Your task to perform on an android device: open app "eBay: The shopping marketplace" (install if not already installed) Image 0: 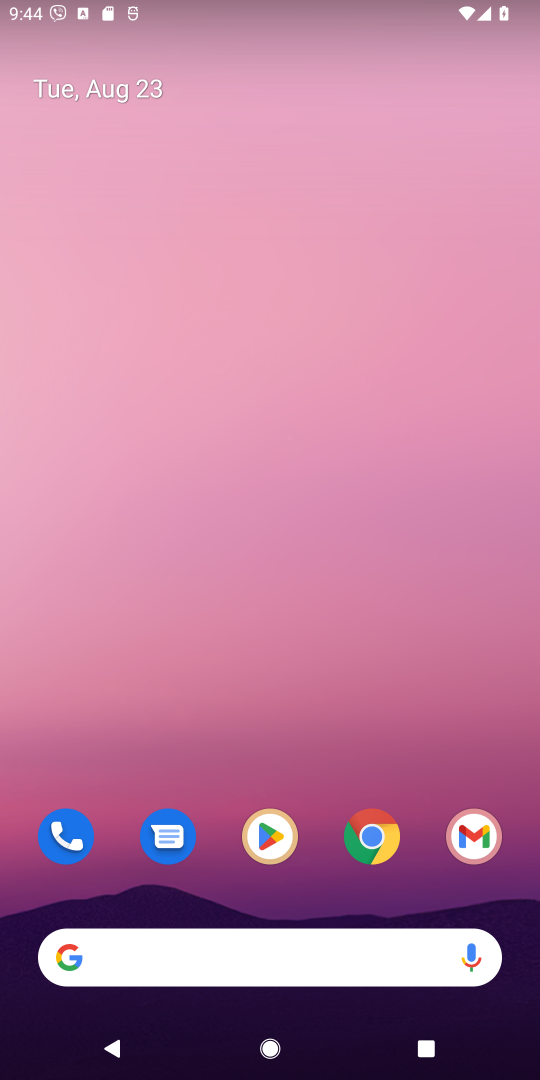
Step 0: click (278, 828)
Your task to perform on an android device: open app "eBay: The shopping marketplace" (install if not already installed) Image 1: 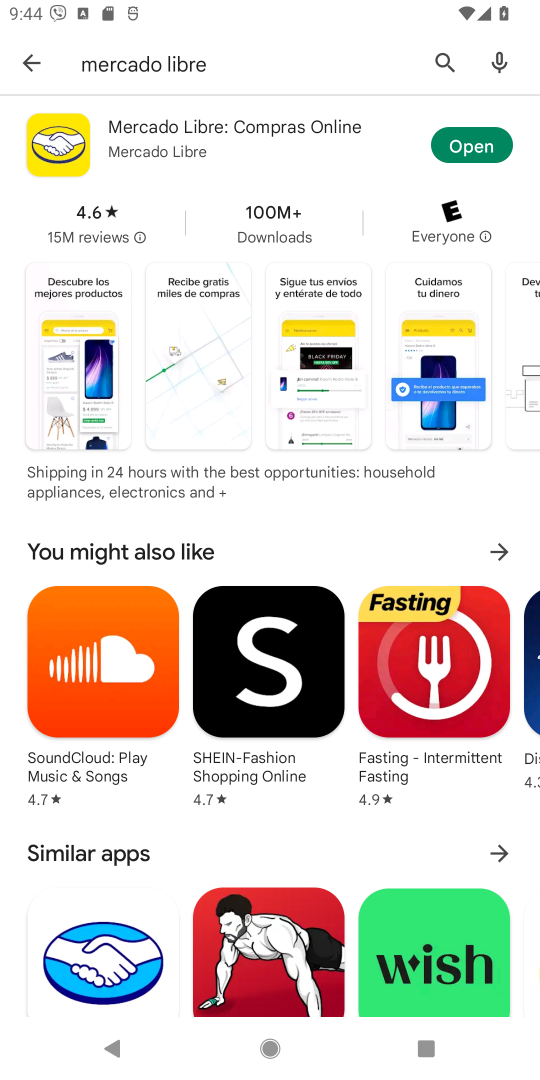
Step 1: click (445, 54)
Your task to perform on an android device: open app "eBay: The shopping marketplace" (install if not already installed) Image 2: 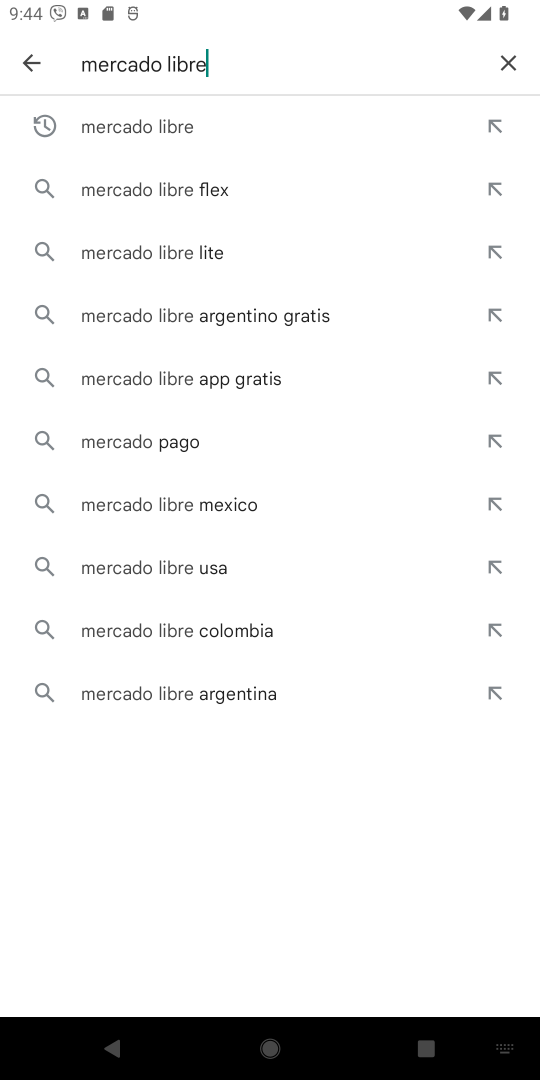
Step 2: click (512, 56)
Your task to perform on an android device: open app "eBay: The shopping marketplace" (install if not already installed) Image 3: 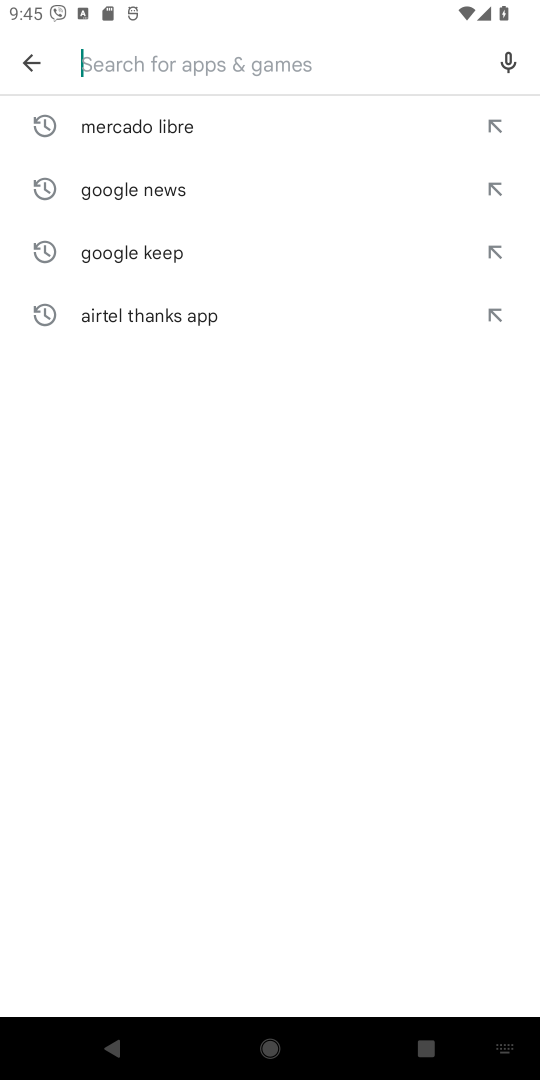
Step 3: type "eBay: The shopping marketplace"
Your task to perform on an android device: open app "eBay: The shopping marketplace" (install if not already installed) Image 4: 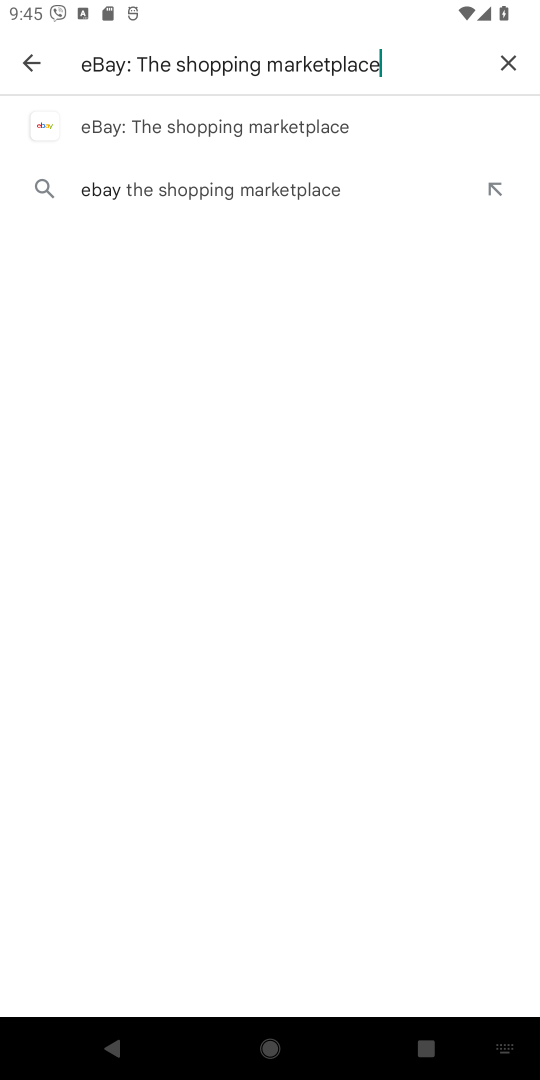
Step 4: click (174, 121)
Your task to perform on an android device: open app "eBay: The shopping marketplace" (install if not already installed) Image 5: 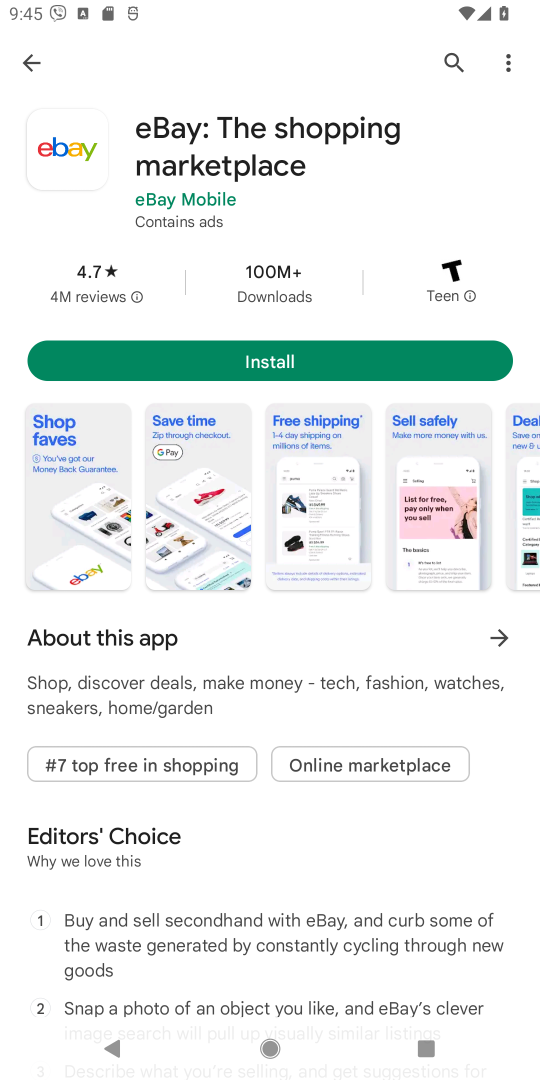
Step 5: click (304, 361)
Your task to perform on an android device: open app "eBay: The shopping marketplace" (install if not already installed) Image 6: 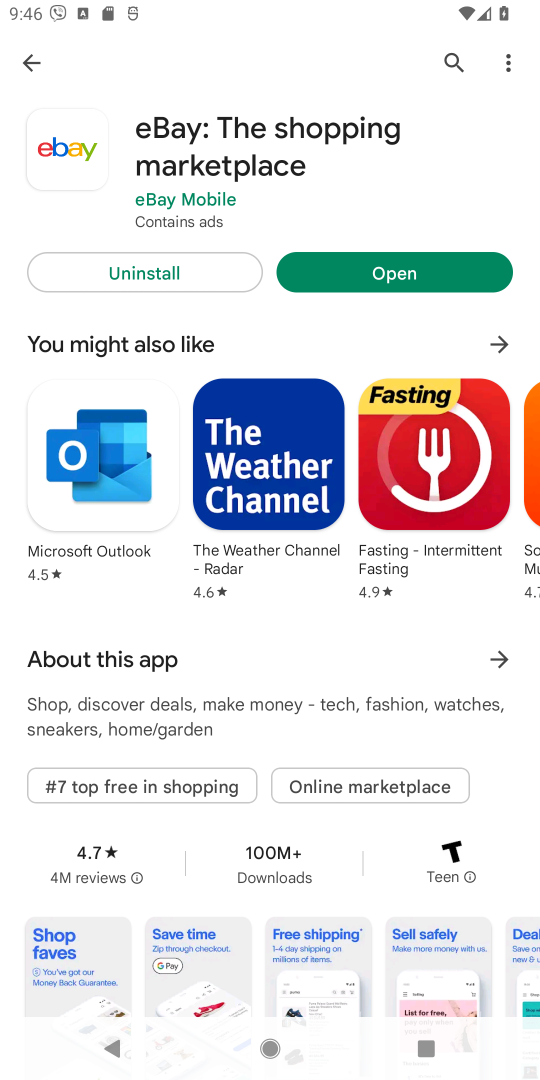
Step 6: click (387, 272)
Your task to perform on an android device: open app "eBay: The shopping marketplace" (install if not already installed) Image 7: 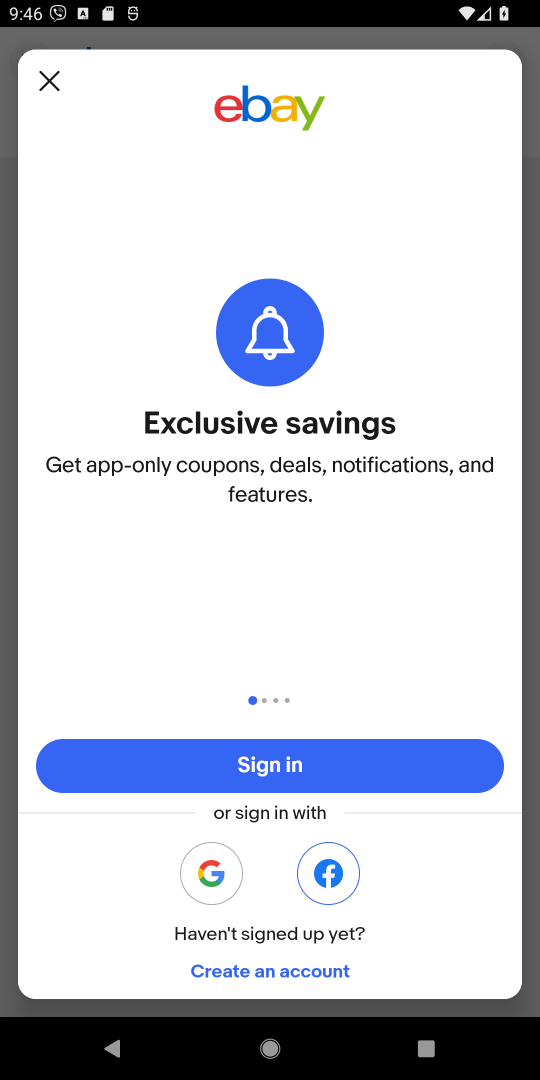
Step 7: task complete